Your task to perform on an android device: Go to accessibility settings Image 0: 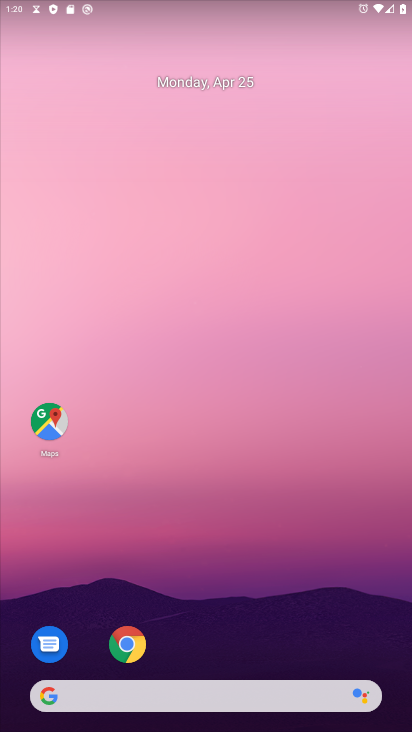
Step 0: drag from (334, 645) to (262, 12)
Your task to perform on an android device: Go to accessibility settings Image 1: 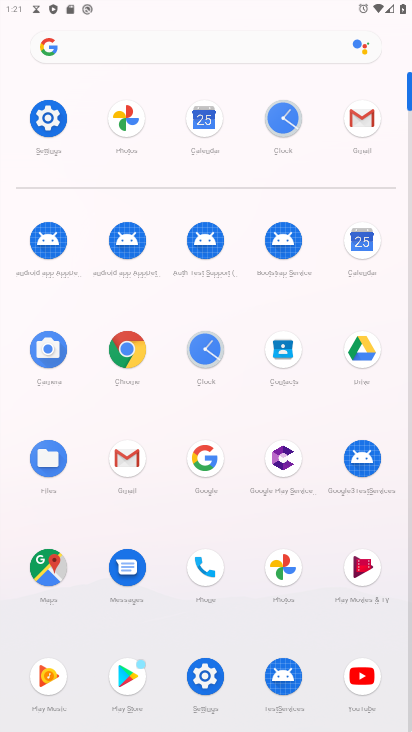
Step 1: click (46, 137)
Your task to perform on an android device: Go to accessibility settings Image 2: 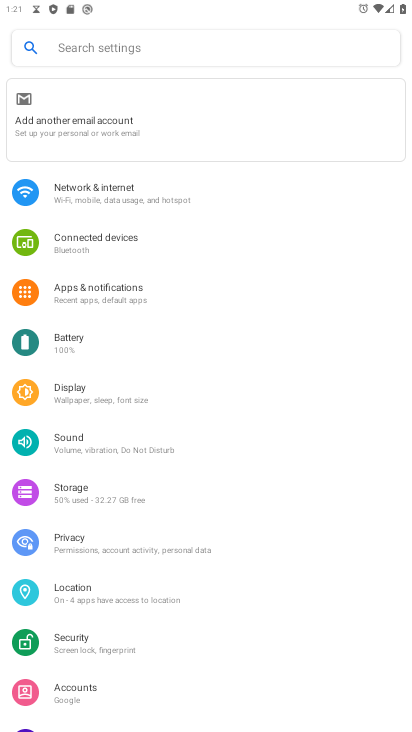
Step 2: drag from (178, 639) to (183, 450)
Your task to perform on an android device: Go to accessibility settings Image 3: 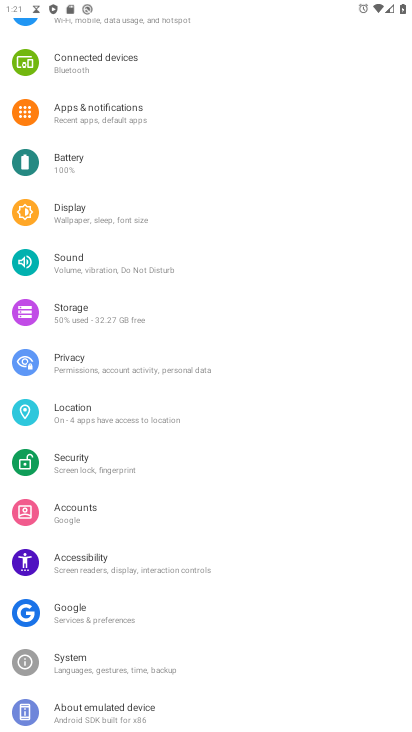
Step 3: click (93, 559)
Your task to perform on an android device: Go to accessibility settings Image 4: 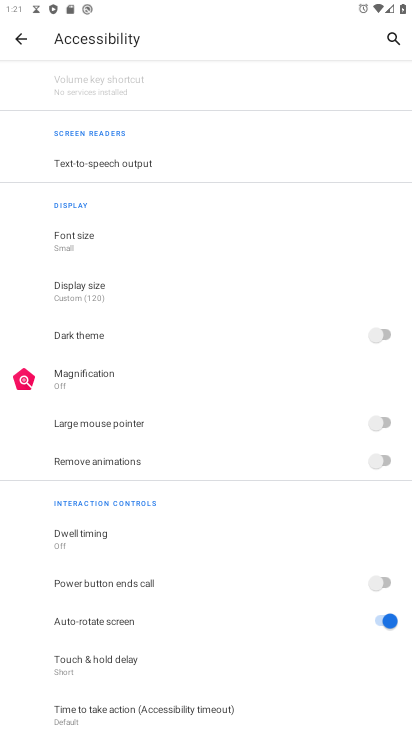
Step 4: task complete